Your task to perform on an android device: Set the phone to "Do not disturb". Image 0: 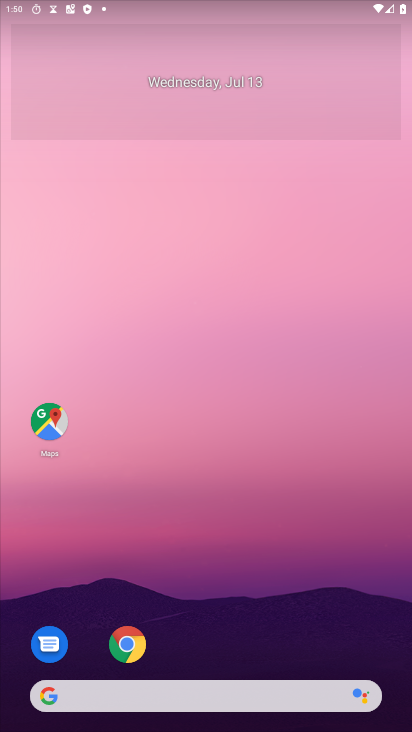
Step 0: drag from (197, 0) to (194, 317)
Your task to perform on an android device: Set the phone to "Do not disturb". Image 1: 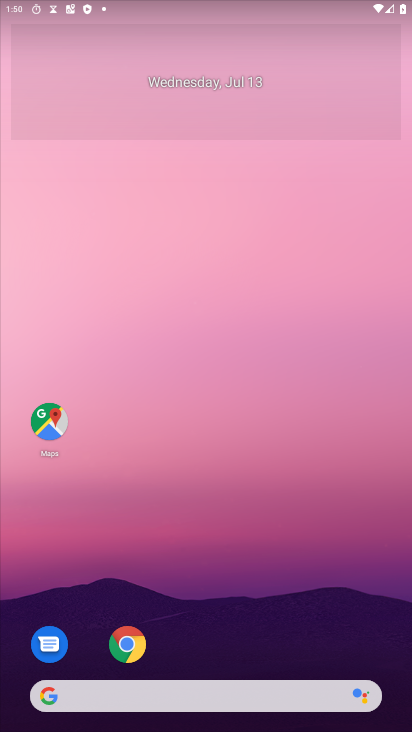
Step 1: drag from (179, 0) to (224, 729)
Your task to perform on an android device: Set the phone to "Do not disturb". Image 2: 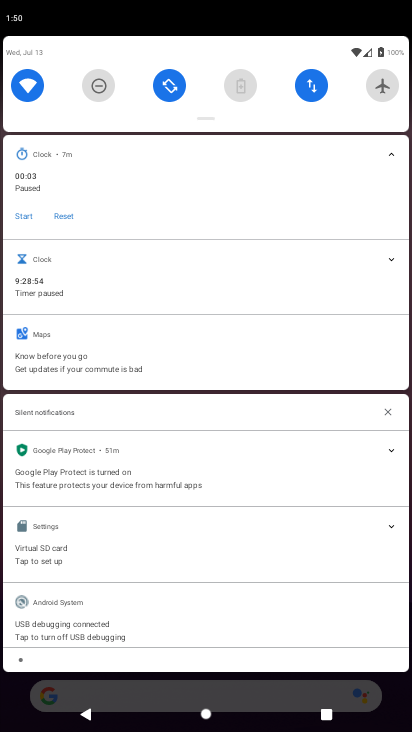
Step 2: drag from (205, 121) to (217, 478)
Your task to perform on an android device: Set the phone to "Do not disturb". Image 3: 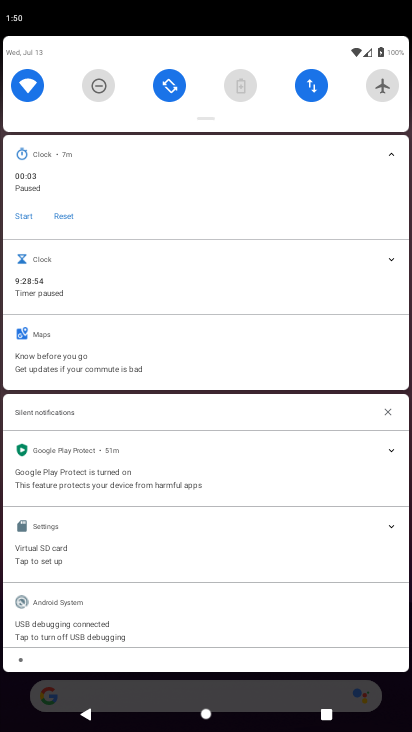
Step 3: drag from (204, 122) to (203, 692)
Your task to perform on an android device: Set the phone to "Do not disturb". Image 4: 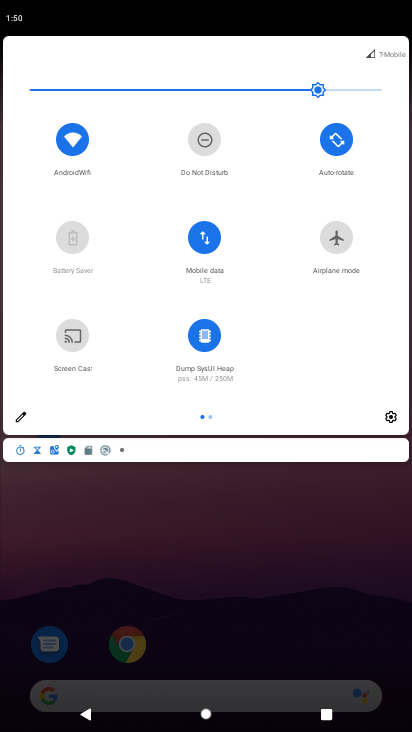
Step 4: click (205, 132)
Your task to perform on an android device: Set the phone to "Do not disturb". Image 5: 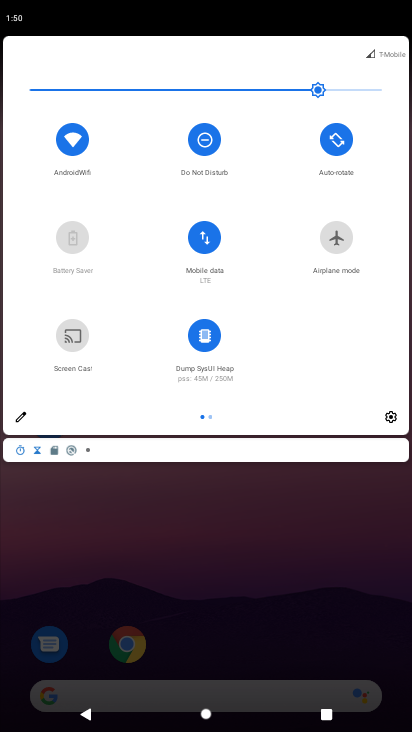
Step 5: task complete